Your task to perform on an android device: turn off javascript in the chrome app Image 0: 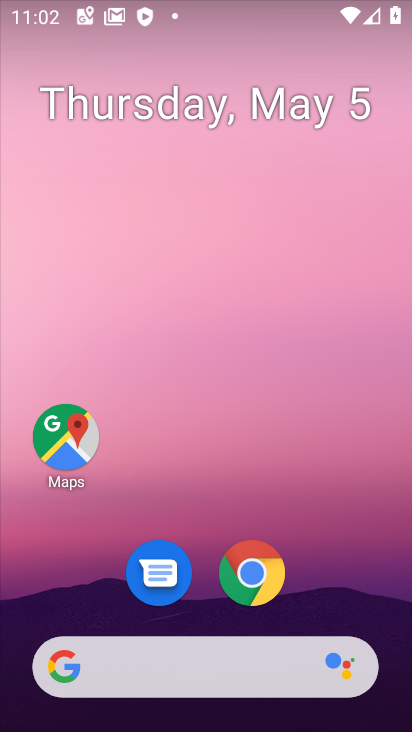
Step 0: drag from (332, 601) to (331, 319)
Your task to perform on an android device: turn off javascript in the chrome app Image 1: 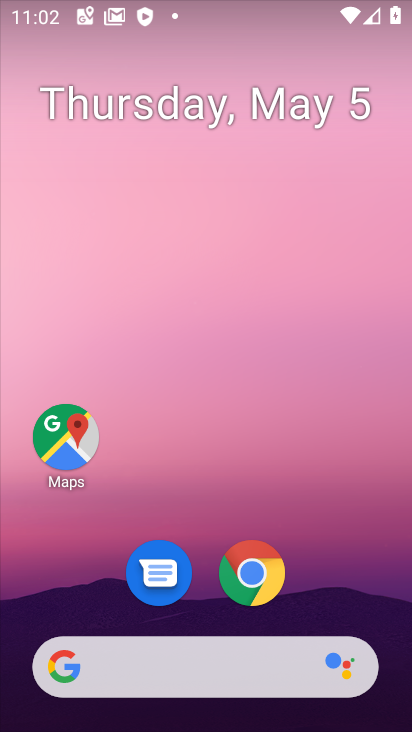
Step 1: drag from (310, 563) to (301, 280)
Your task to perform on an android device: turn off javascript in the chrome app Image 2: 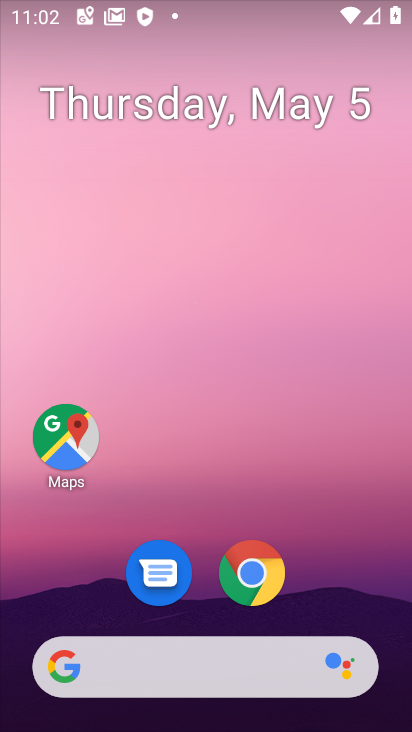
Step 2: drag from (307, 573) to (271, 240)
Your task to perform on an android device: turn off javascript in the chrome app Image 3: 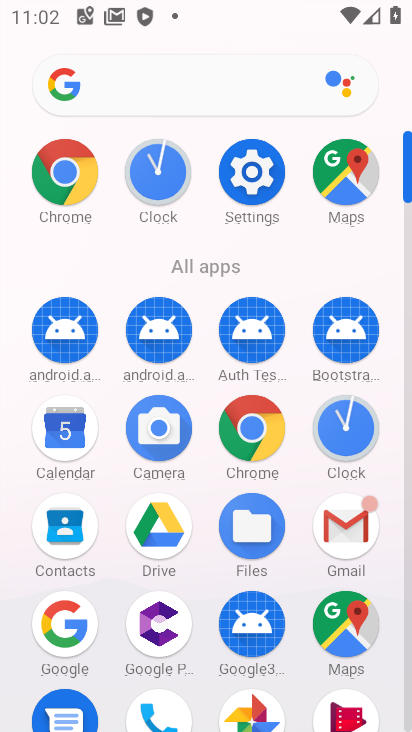
Step 3: click (251, 441)
Your task to perform on an android device: turn off javascript in the chrome app Image 4: 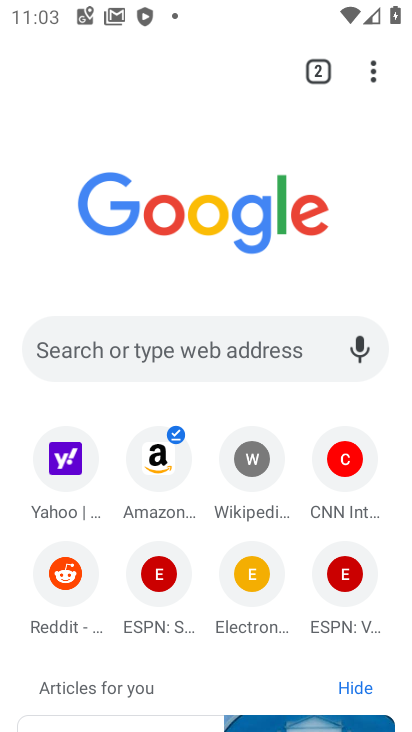
Step 4: click (370, 68)
Your task to perform on an android device: turn off javascript in the chrome app Image 5: 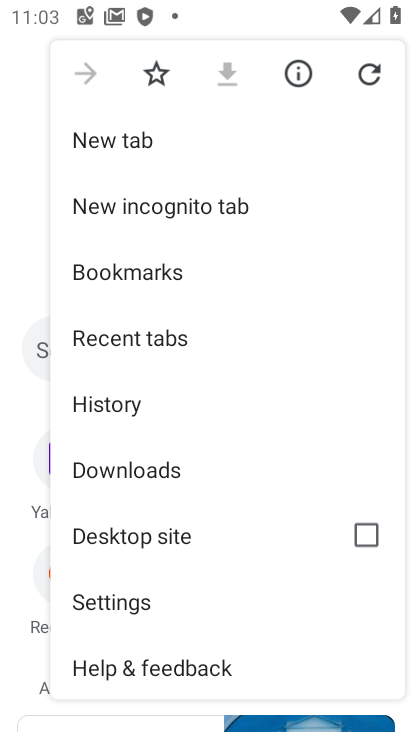
Step 5: click (125, 602)
Your task to perform on an android device: turn off javascript in the chrome app Image 6: 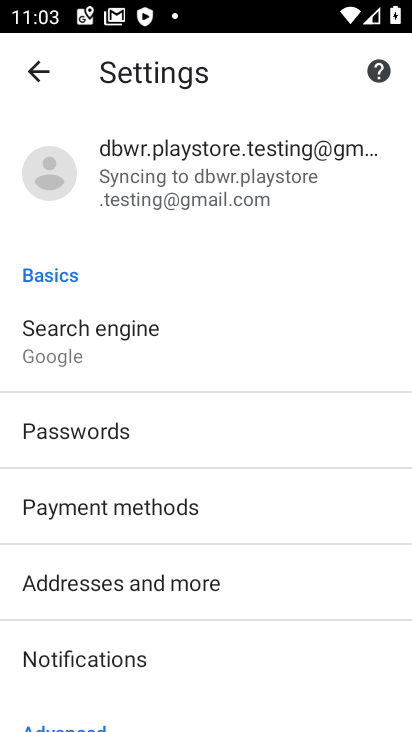
Step 6: drag from (203, 676) to (253, 373)
Your task to perform on an android device: turn off javascript in the chrome app Image 7: 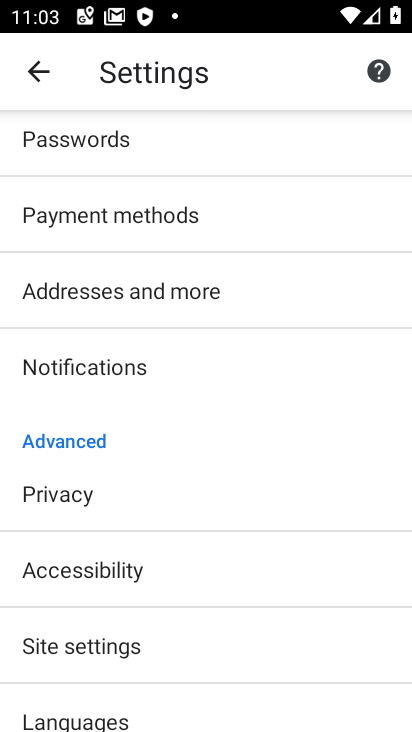
Step 7: click (173, 648)
Your task to perform on an android device: turn off javascript in the chrome app Image 8: 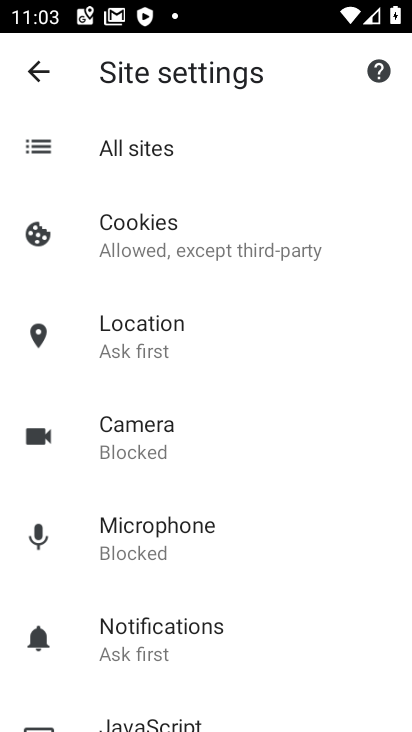
Step 8: drag from (245, 655) to (282, 338)
Your task to perform on an android device: turn off javascript in the chrome app Image 9: 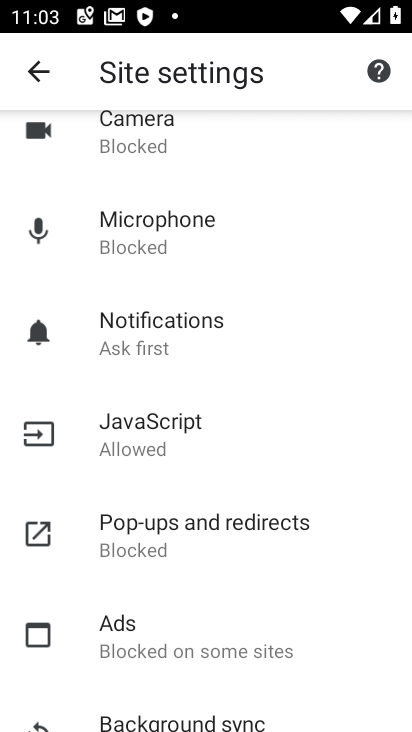
Step 9: click (180, 430)
Your task to perform on an android device: turn off javascript in the chrome app Image 10: 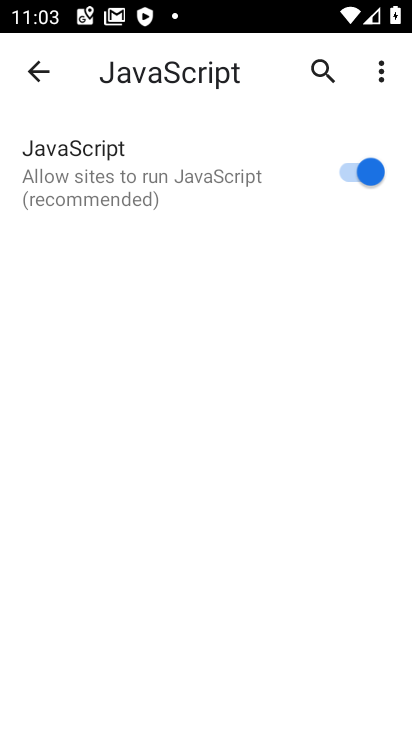
Step 10: click (346, 168)
Your task to perform on an android device: turn off javascript in the chrome app Image 11: 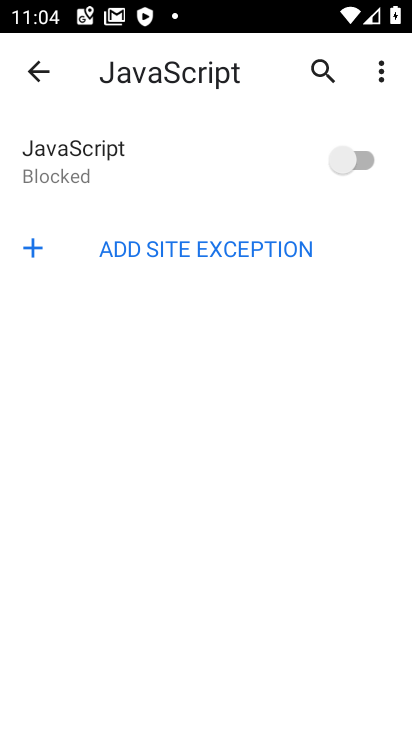
Step 11: task complete